Your task to perform on an android device: Go to Yahoo.com Image 0: 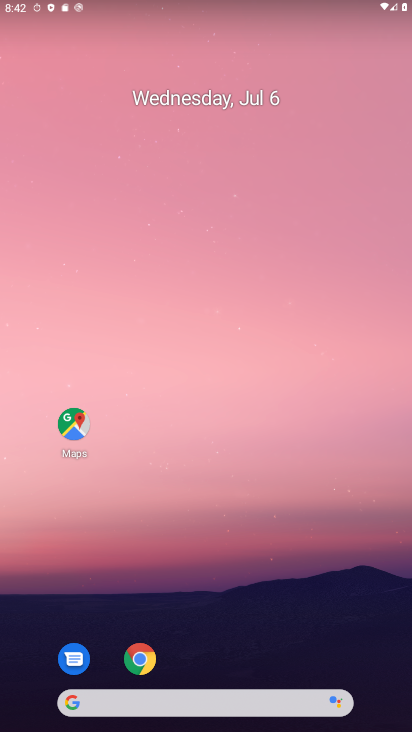
Step 0: drag from (366, 619) to (370, 176)
Your task to perform on an android device: Go to Yahoo.com Image 1: 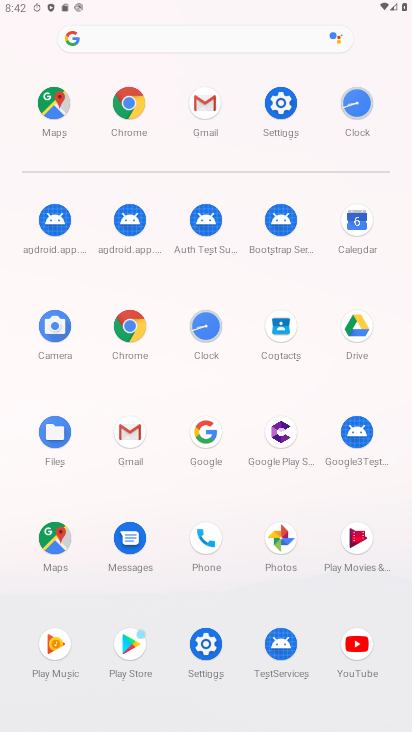
Step 1: click (141, 328)
Your task to perform on an android device: Go to Yahoo.com Image 2: 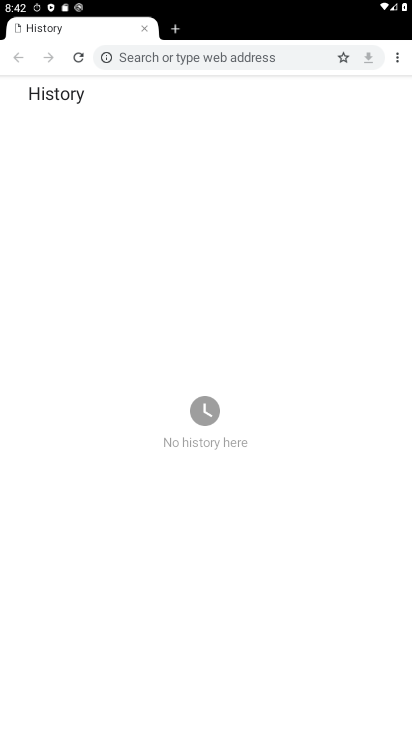
Step 2: click (211, 55)
Your task to perform on an android device: Go to Yahoo.com Image 3: 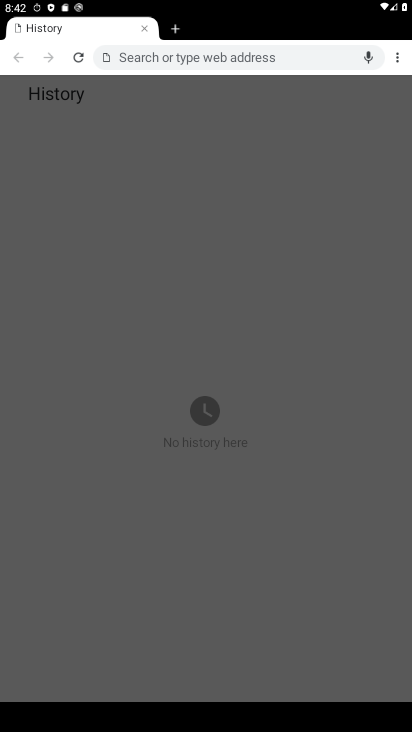
Step 3: type "yahoo.com"
Your task to perform on an android device: Go to Yahoo.com Image 4: 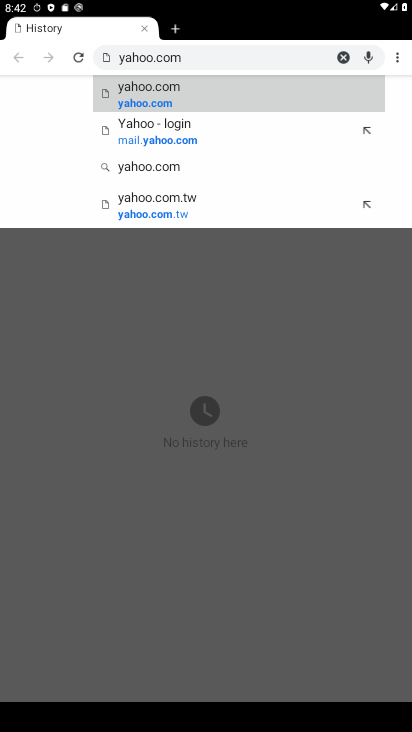
Step 4: click (192, 83)
Your task to perform on an android device: Go to Yahoo.com Image 5: 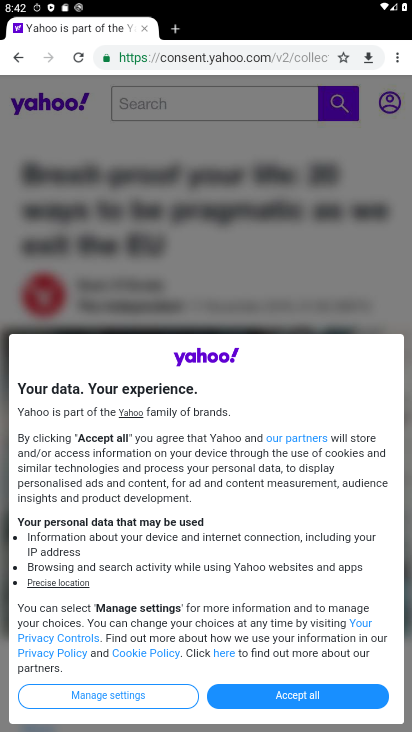
Step 5: click (323, 700)
Your task to perform on an android device: Go to Yahoo.com Image 6: 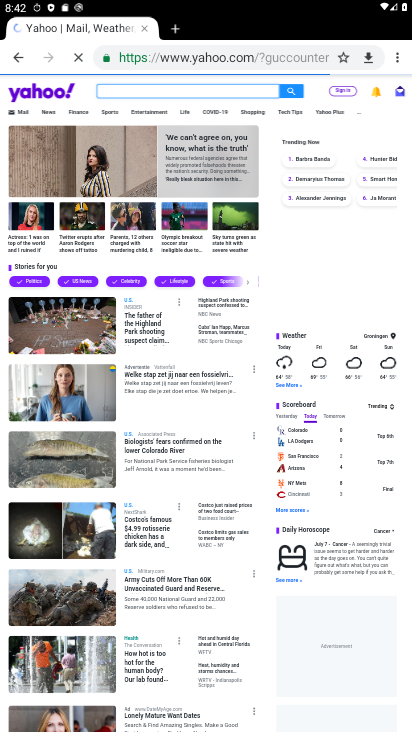
Step 6: task complete